Your task to perform on an android device: Go to battery settings Image 0: 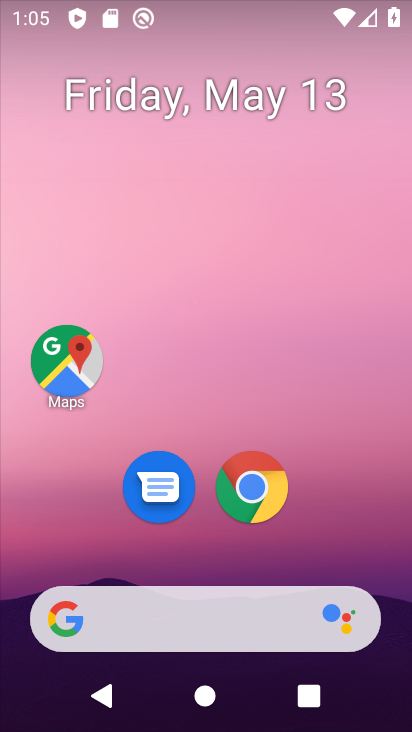
Step 0: drag from (334, 545) to (342, 168)
Your task to perform on an android device: Go to battery settings Image 1: 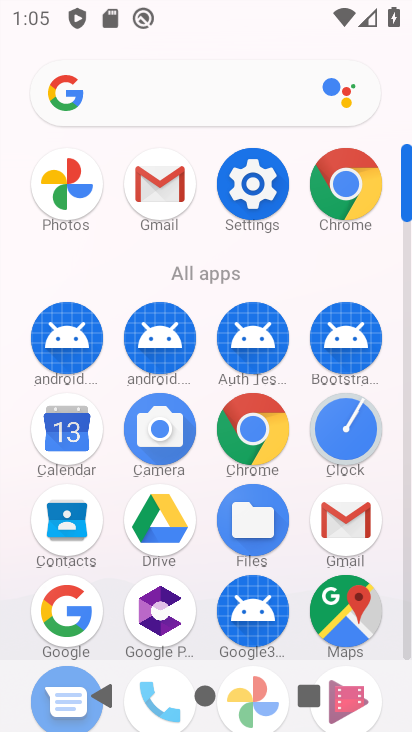
Step 1: click (250, 193)
Your task to perform on an android device: Go to battery settings Image 2: 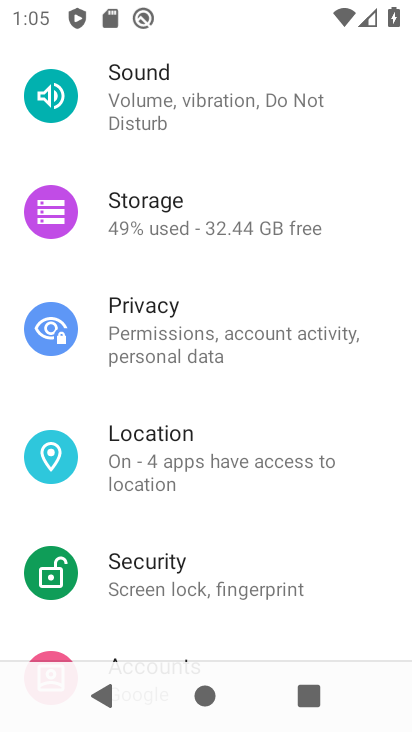
Step 2: drag from (218, 276) to (218, 619)
Your task to perform on an android device: Go to battery settings Image 3: 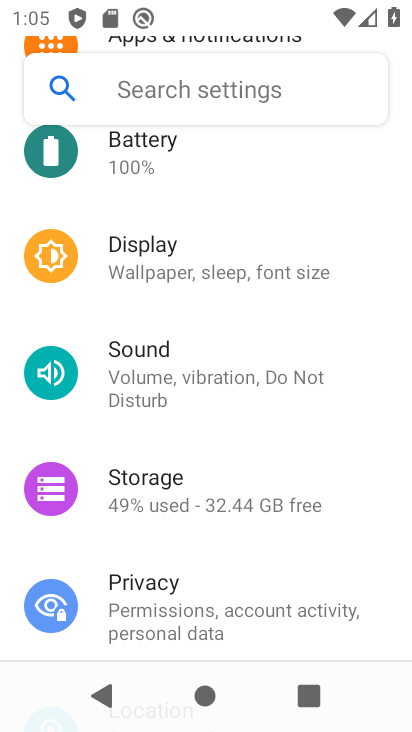
Step 3: click (169, 171)
Your task to perform on an android device: Go to battery settings Image 4: 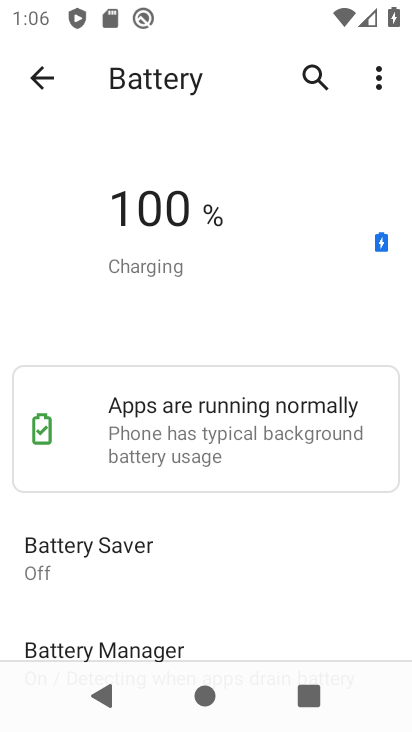
Step 4: task complete